Your task to perform on an android device: Go to accessibility settings Image 0: 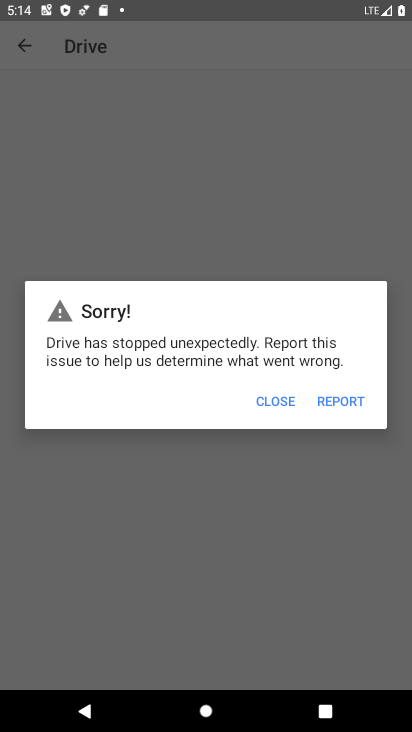
Step 0: press home button
Your task to perform on an android device: Go to accessibility settings Image 1: 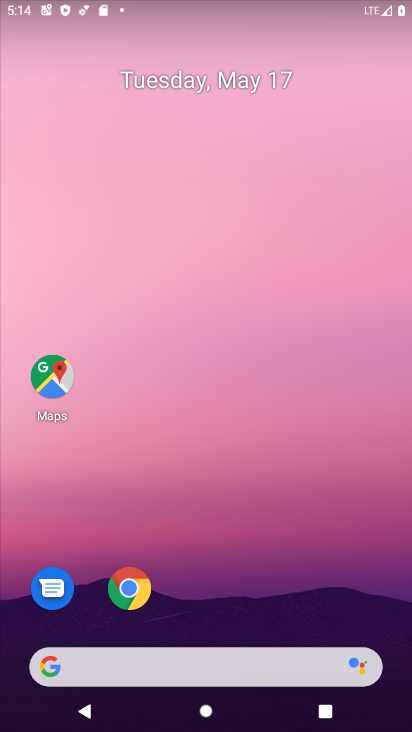
Step 1: drag from (248, 598) to (175, 126)
Your task to perform on an android device: Go to accessibility settings Image 2: 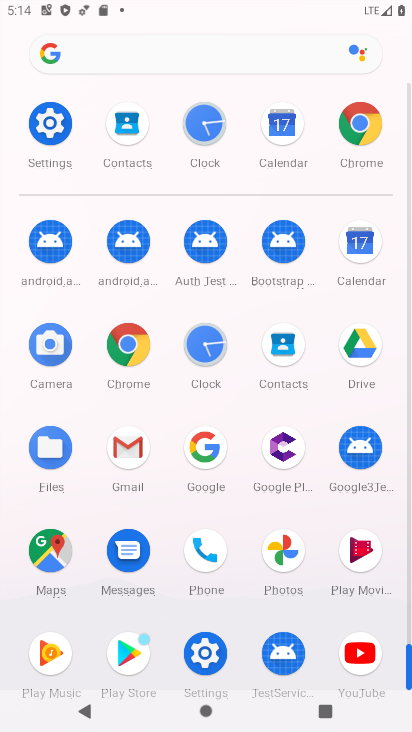
Step 2: click (48, 121)
Your task to perform on an android device: Go to accessibility settings Image 3: 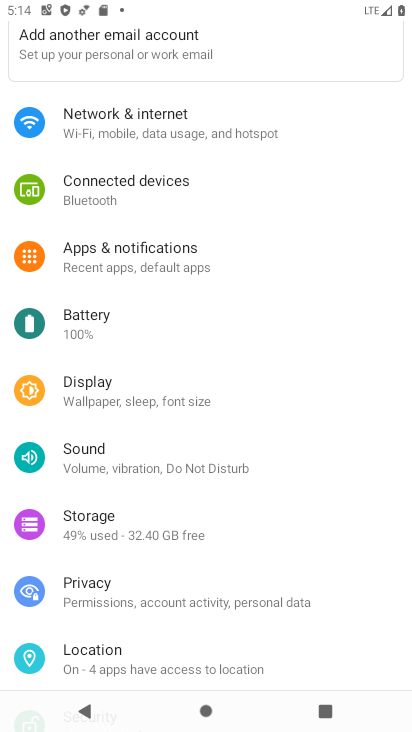
Step 3: drag from (118, 506) to (152, 420)
Your task to perform on an android device: Go to accessibility settings Image 4: 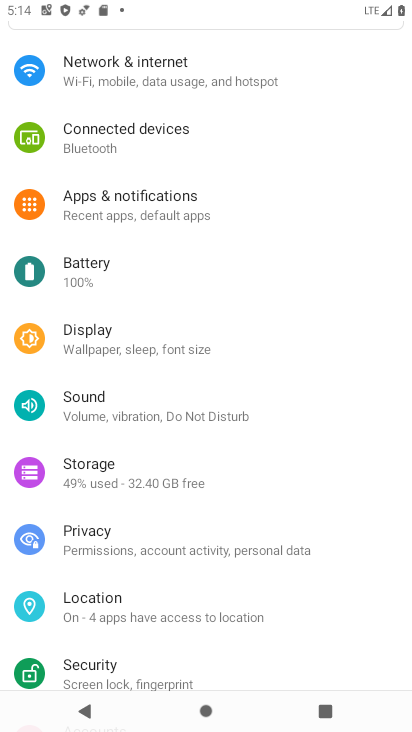
Step 4: drag from (141, 532) to (180, 448)
Your task to perform on an android device: Go to accessibility settings Image 5: 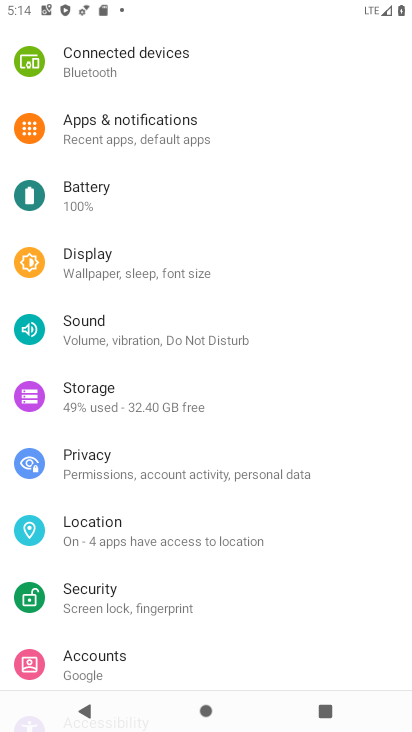
Step 5: drag from (136, 575) to (182, 464)
Your task to perform on an android device: Go to accessibility settings Image 6: 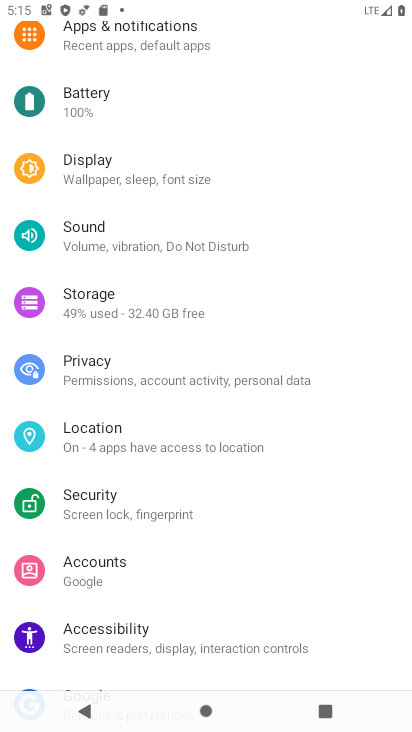
Step 6: click (122, 631)
Your task to perform on an android device: Go to accessibility settings Image 7: 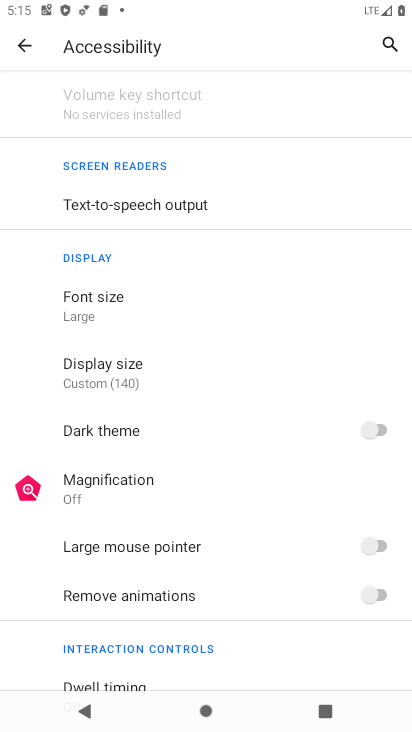
Step 7: task complete